Your task to perform on an android device: open the mobile data screen to see how much data has been used Image 0: 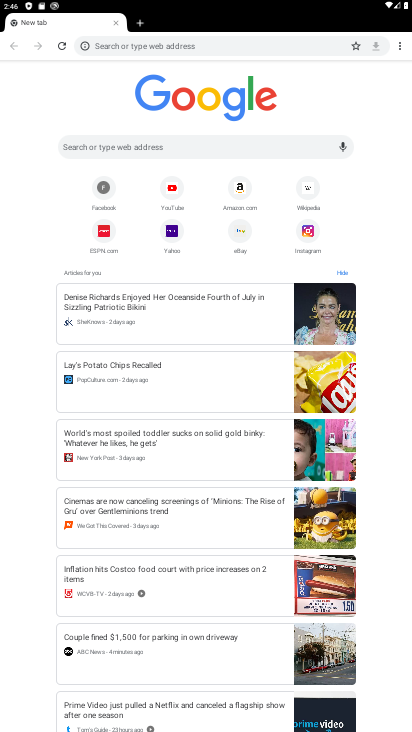
Step 0: press home button
Your task to perform on an android device: open the mobile data screen to see how much data has been used Image 1: 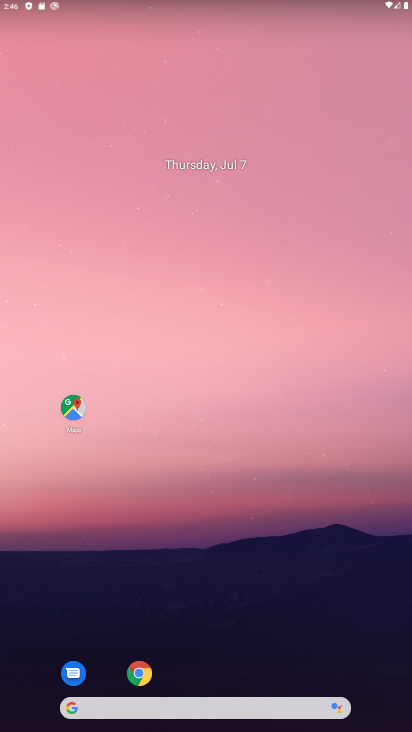
Step 1: drag from (232, 659) to (193, 3)
Your task to perform on an android device: open the mobile data screen to see how much data has been used Image 2: 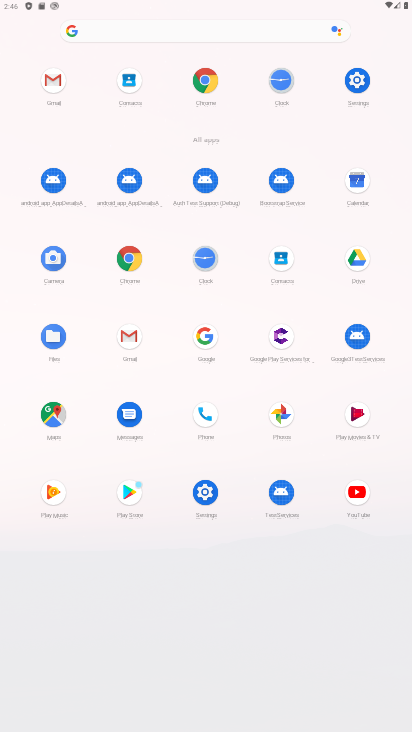
Step 2: click (358, 84)
Your task to perform on an android device: open the mobile data screen to see how much data has been used Image 3: 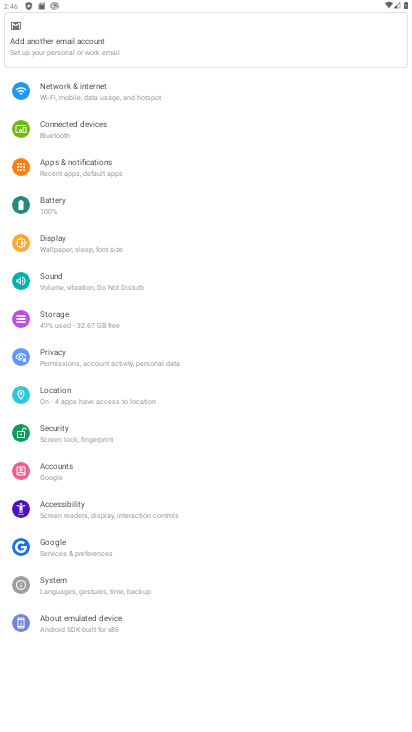
Step 3: click (120, 95)
Your task to perform on an android device: open the mobile data screen to see how much data has been used Image 4: 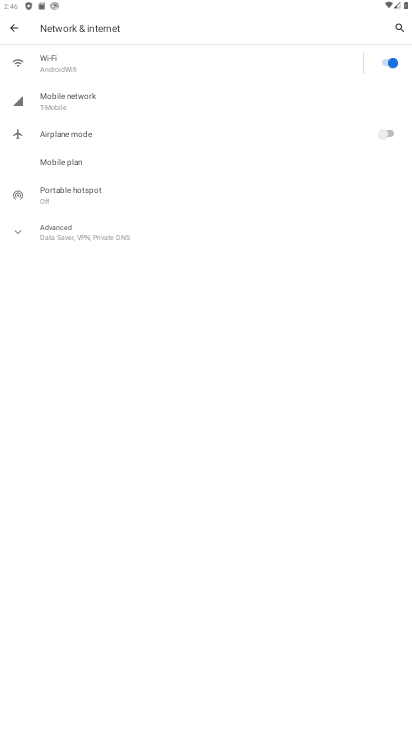
Step 4: click (84, 99)
Your task to perform on an android device: open the mobile data screen to see how much data has been used Image 5: 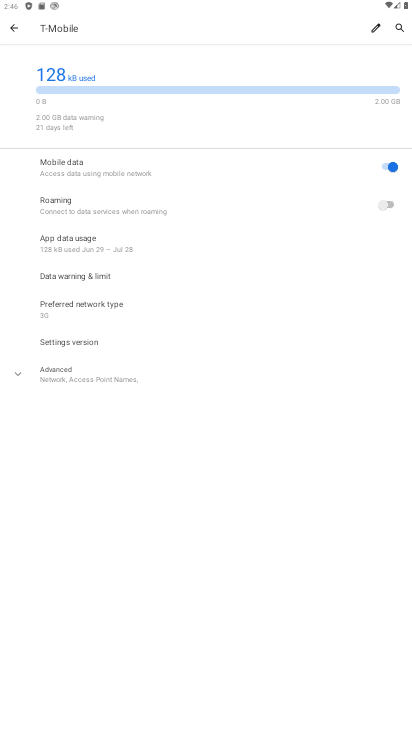
Step 5: click (106, 256)
Your task to perform on an android device: open the mobile data screen to see how much data has been used Image 6: 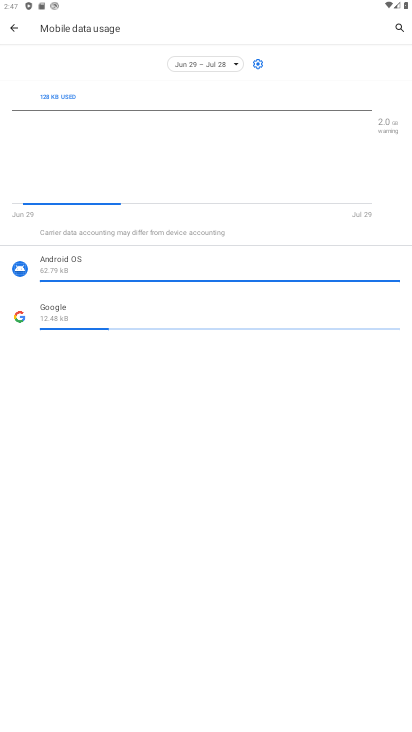
Step 6: task complete